Your task to perform on an android device: Show me popular games on the Play Store Image 0: 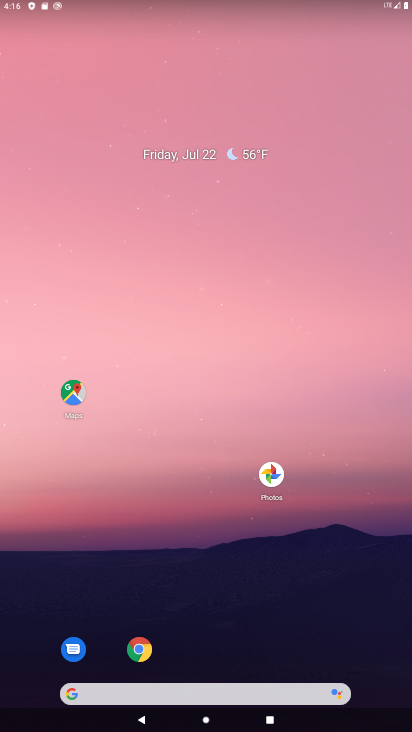
Step 0: drag from (313, 365) to (306, 192)
Your task to perform on an android device: Show me popular games on the Play Store Image 1: 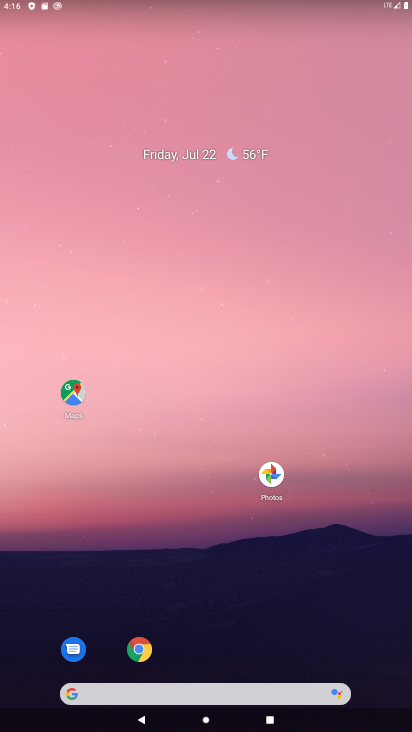
Step 1: drag from (281, 520) to (195, 11)
Your task to perform on an android device: Show me popular games on the Play Store Image 2: 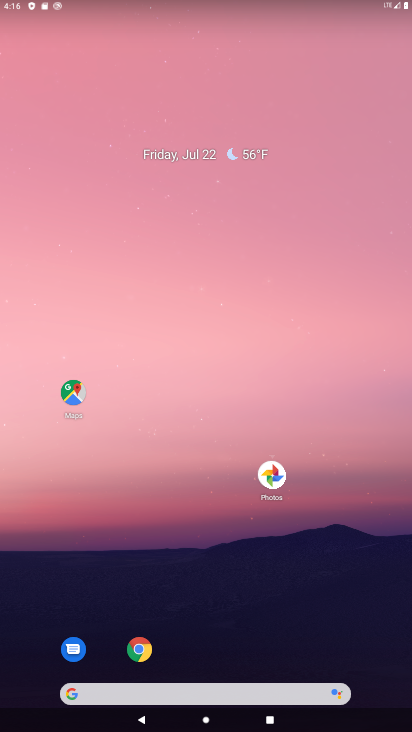
Step 2: click (226, 53)
Your task to perform on an android device: Show me popular games on the Play Store Image 3: 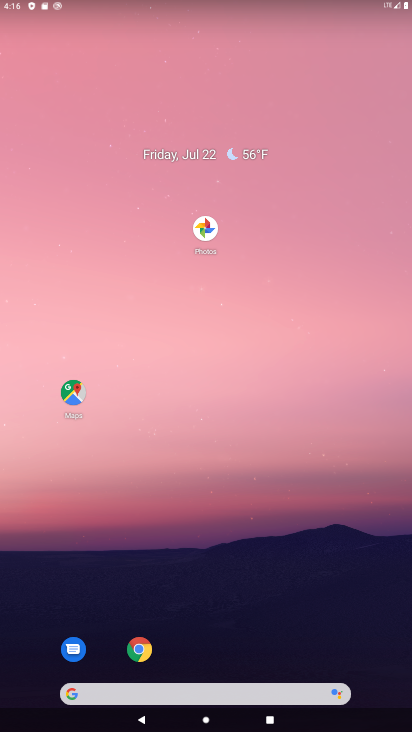
Step 3: drag from (205, 496) to (241, 95)
Your task to perform on an android device: Show me popular games on the Play Store Image 4: 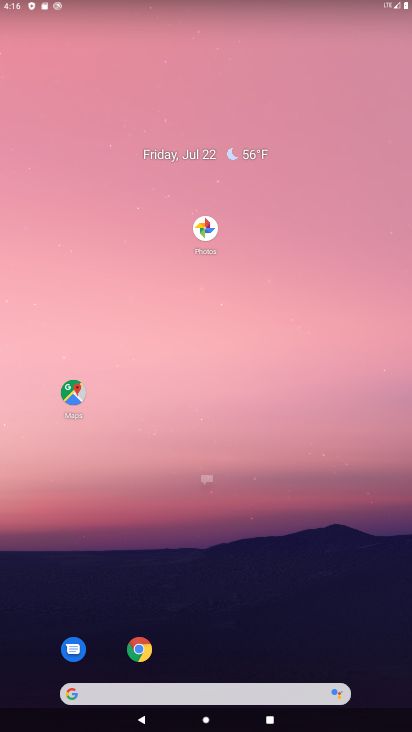
Step 4: drag from (222, 53) to (258, 17)
Your task to perform on an android device: Show me popular games on the Play Store Image 5: 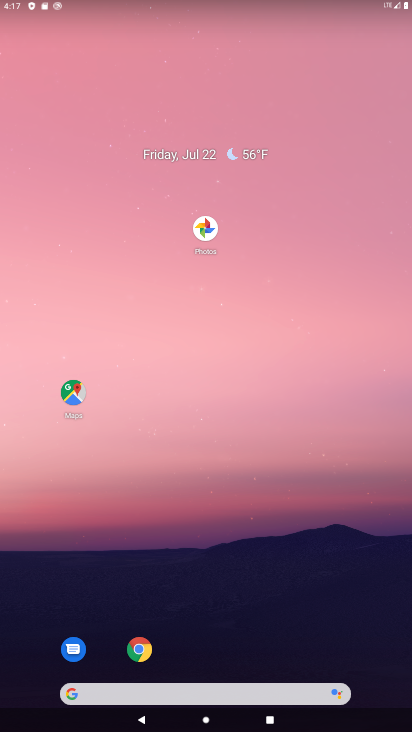
Step 5: drag from (211, 165) to (204, 120)
Your task to perform on an android device: Show me popular games on the Play Store Image 6: 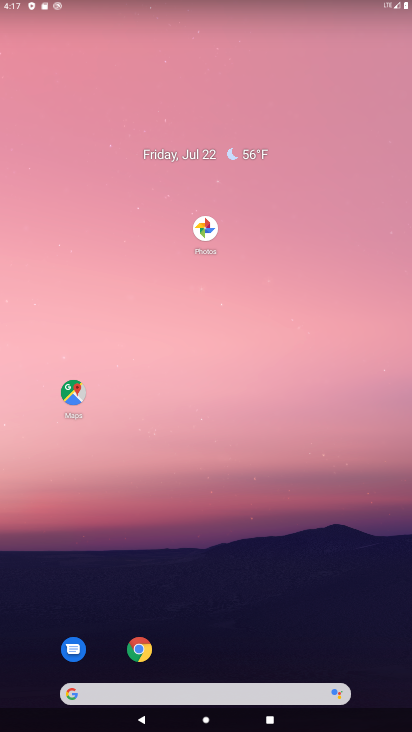
Step 6: drag from (177, 81) to (127, 156)
Your task to perform on an android device: Show me popular games on the Play Store Image 7: 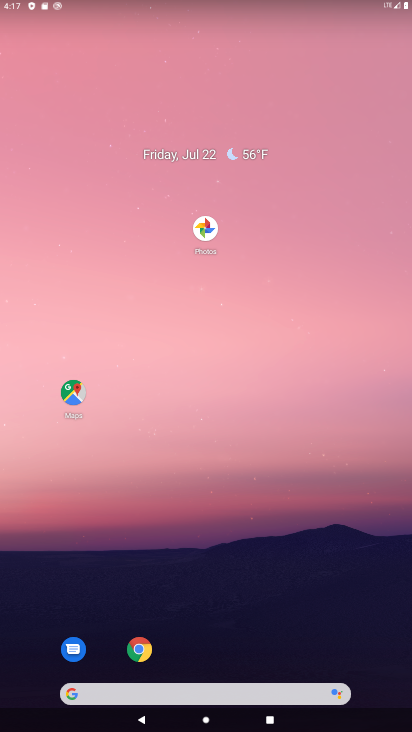
Step 7: drag from (225, 168) to (238, 78)
Your task to perform on an android device: Show me popular games on the Play Store Image 8: 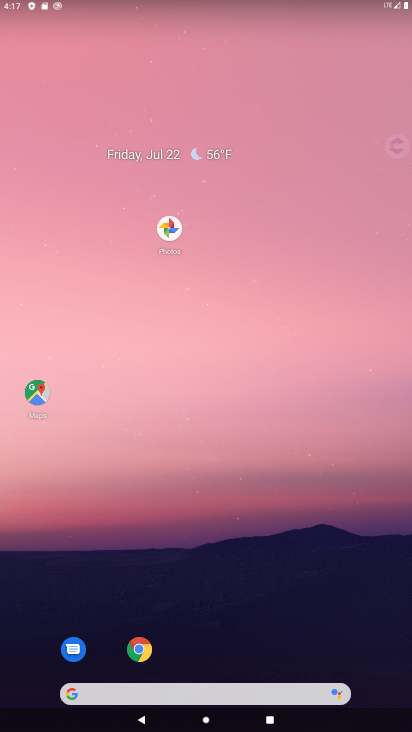
Step 8: drag from (266, 494) to (212, 10)
Your task to perform on an android device: Show me popular games on the Play Store Image 9: 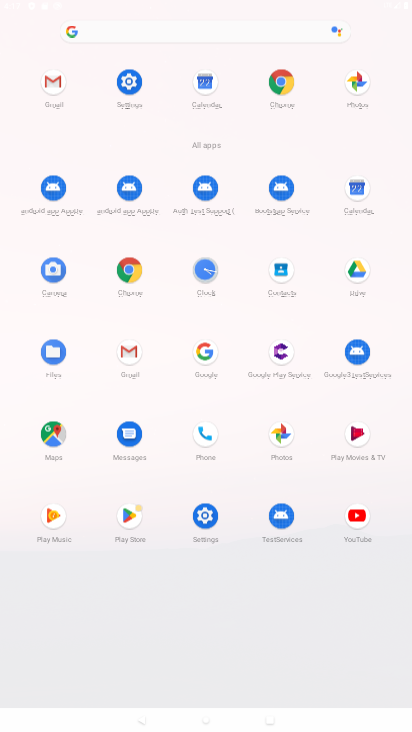
Step 9: drag from (232, 278) to (232, 117)
Your task to perform on an android device: Show me popular games on the Play Store Image 10: 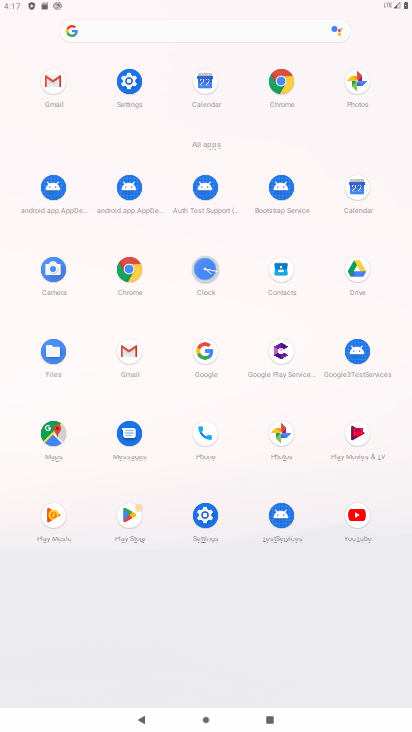
Step 10: drag from (244, 317) to (228, 76)
Your task to perform on an android device: Show me popular games on the Play Store Image 11: 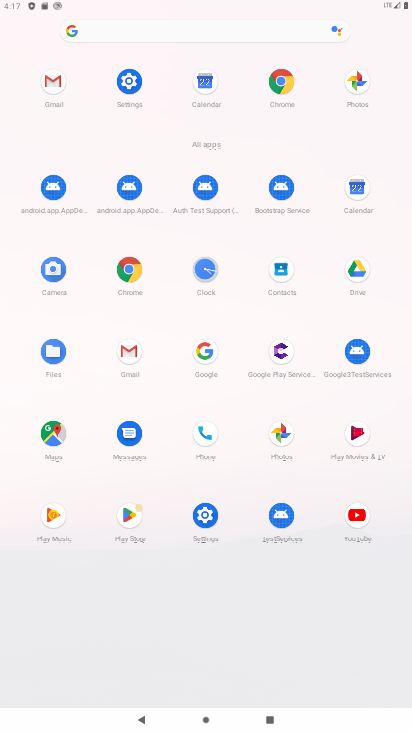
Step 11: click (131, 526)
Your task to perform on an android device: Show me popular games on the Play Store Image 12: 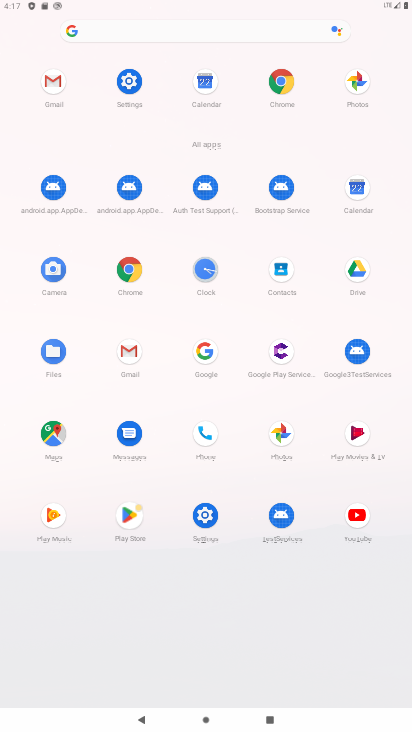
Step 12: click (130, 525)
Your task to perform on an android device: Show me popular games on the Play Store Image 13: 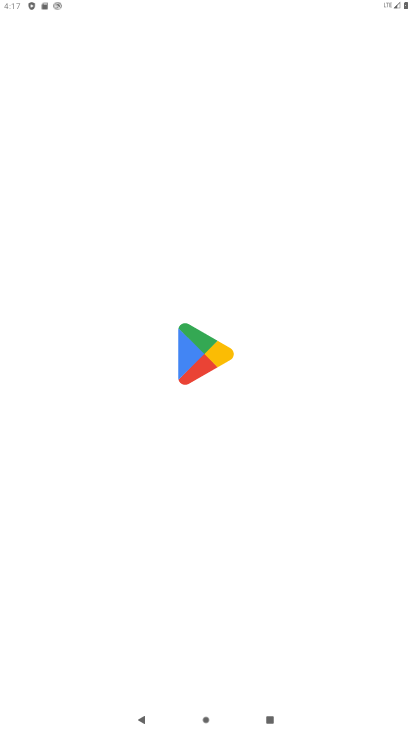
Step 13: click (135, 520)
Your task to perform on an android device: Show me popular games on the Play Store Image 14: 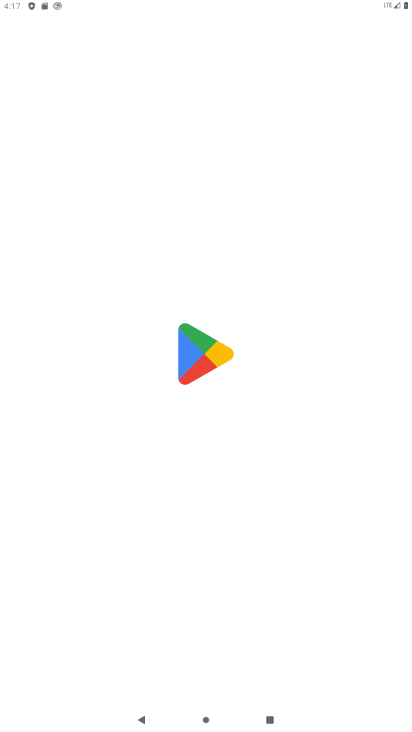
Step 14: click (135, 521)
Your task to perform on an android device: Show me popular games on the Play Store Image 15: 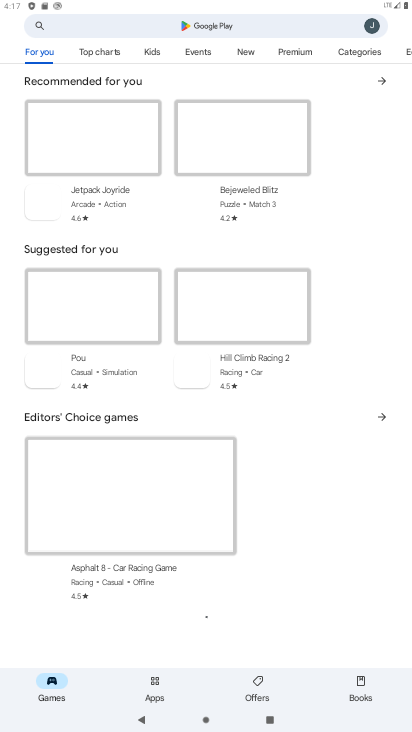
Step 15: click (241, 28)
Your task to perform on an android device: Show me popular games on the Play Store Image 16: 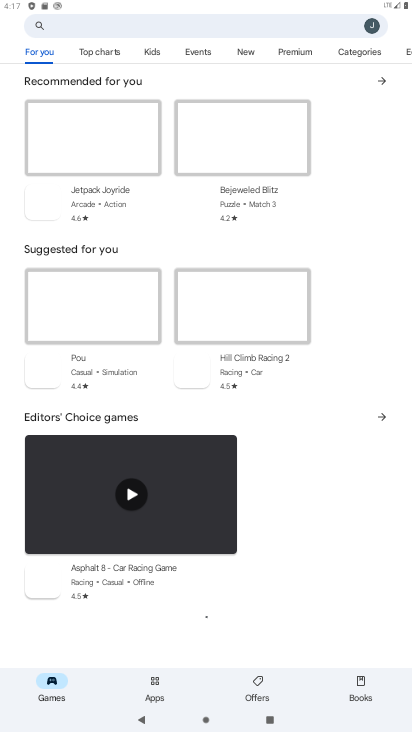
Step 16: click (253, 24)
Your task to perform on an android device: Show me popular games on the Play Store Image 17: 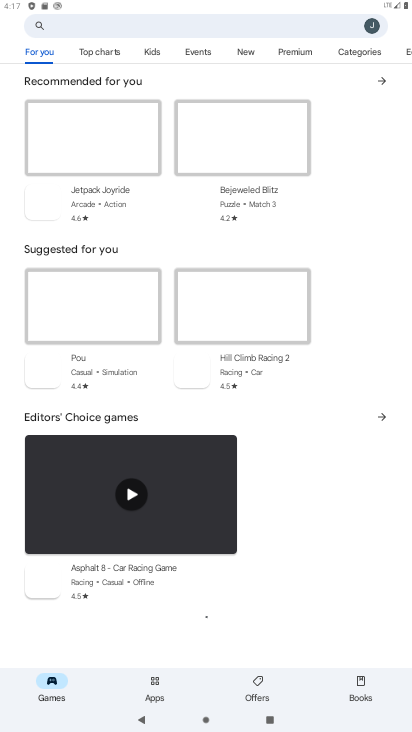
Step 17: click (255, 24)
Your task to perform on an android device: Show me popular games on the Play Store Image 18: 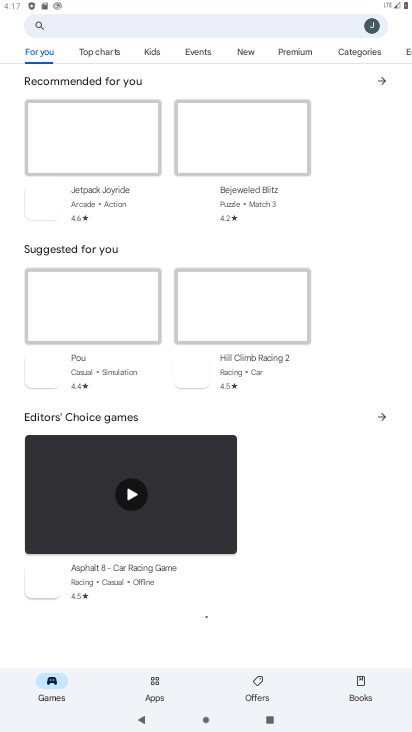
Step 18: click (255, 24)
Your task to perform on an android device: Show me popular games on the Play Store Image 19: 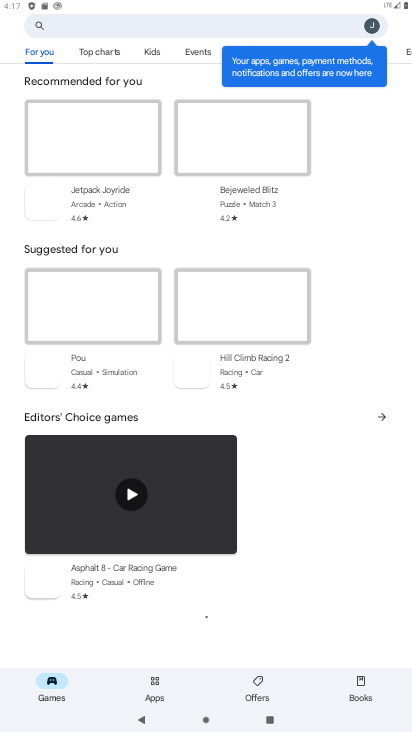
Step 19: click (262, 20)
Your task to perform on an android device: Show me popular games on the Play Store Image 20: 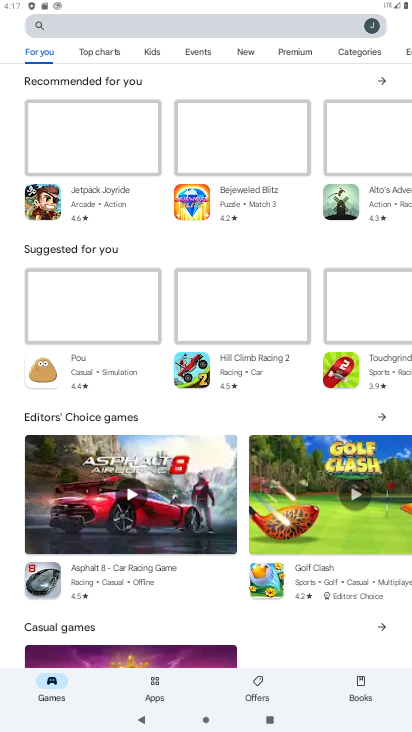
Step 20: click (262, 33)
Your task to perform on an android device: Show me popular games on the Play Store Image 21: 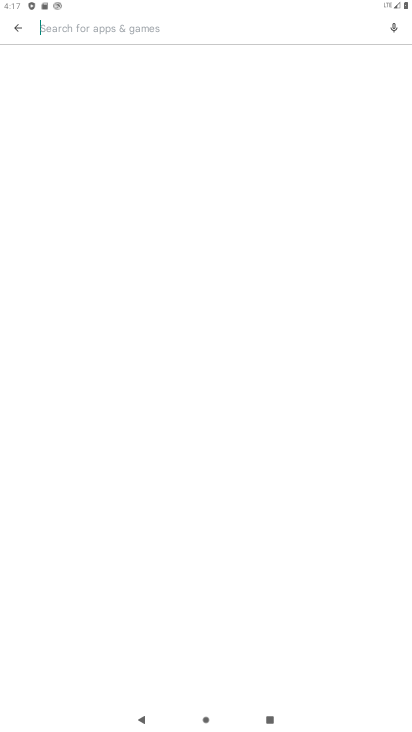
Step 21: click (246, 35)
Your task to perform on an android device: Show me popular games on the Play Store Image 22: 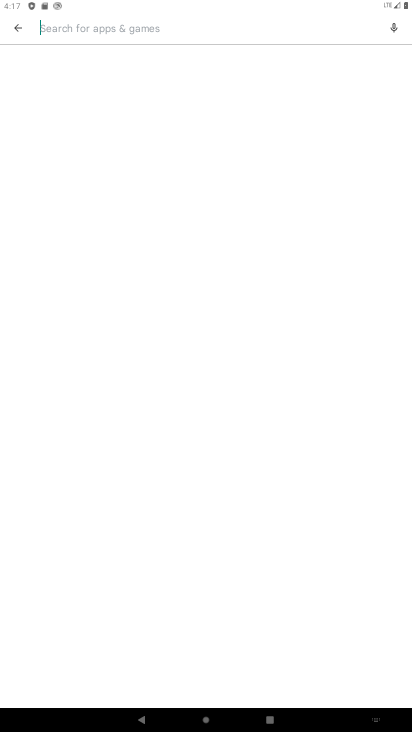
Step 22: click (246, 35)
Your task to perform on an android device: Show me popular games on the Play Store Image 23: 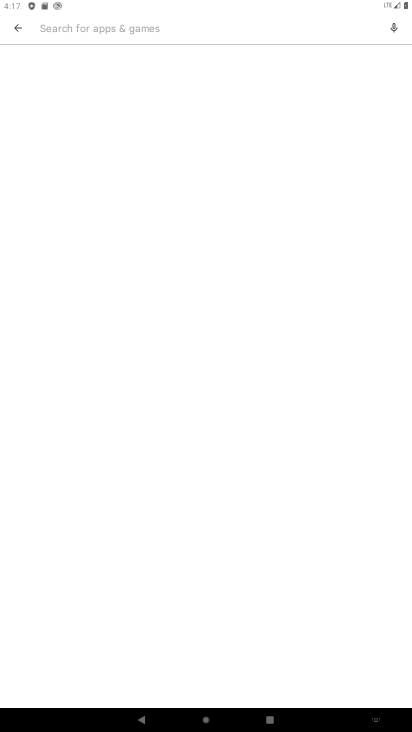
Step 23: click (226, 24)
Your task to perform on an android device: Show me popular games on the Play Store Image 24: 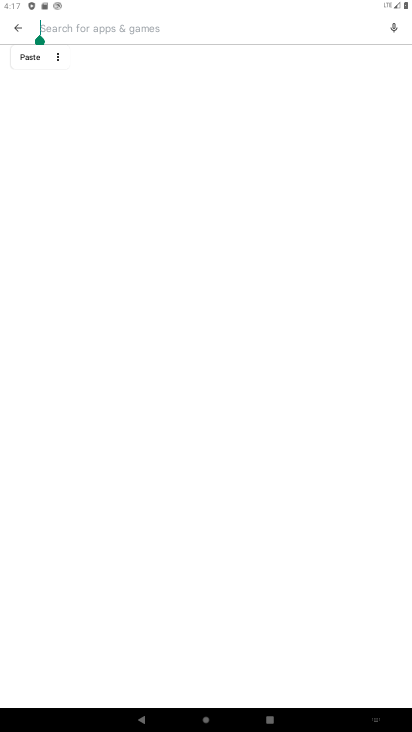
Step 24: type "games"
Your task to perform on an android device: Show me popular games on the Play Store Image 25: 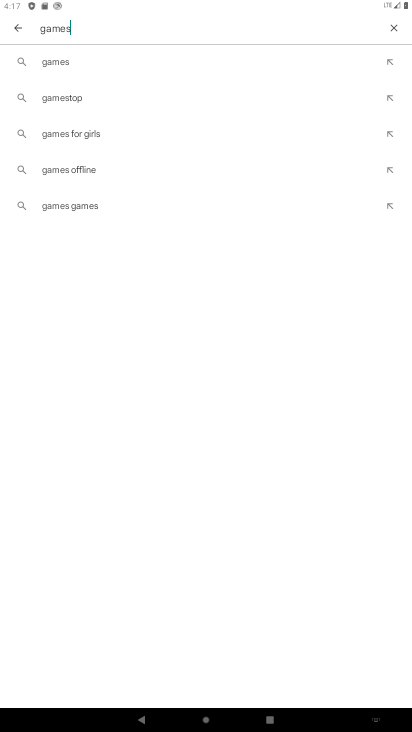
Step 25: click (61, 58)
Your task to perform on an android device: Show me popular games on the Play Store Image 26: 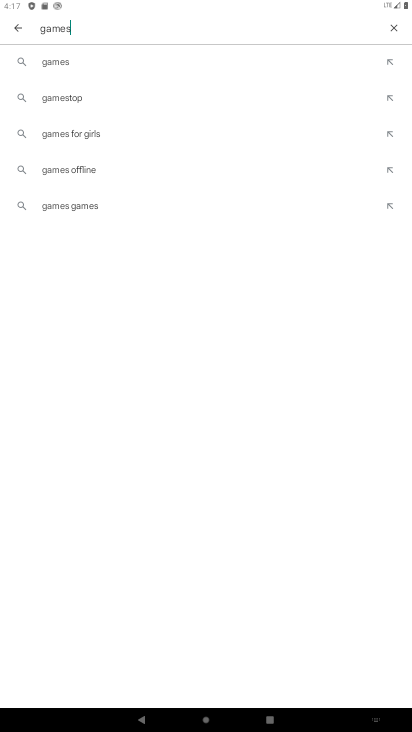
Step 26: click (61, 58)
Your task to perform on an android device: Show me popular games on the Play Store Image 27: 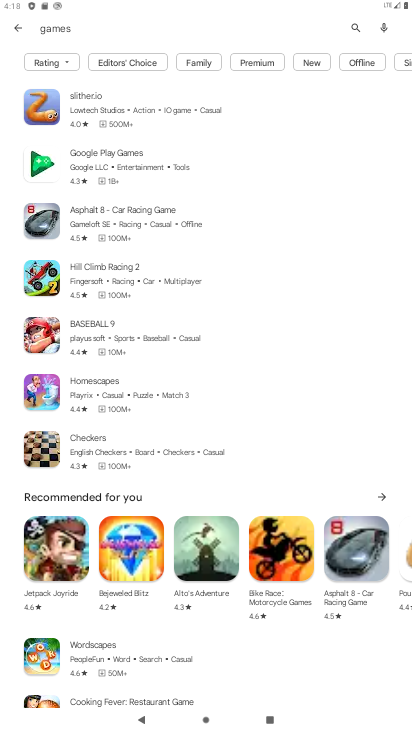
Step 27: task complete